Your task to perform on an android device: Open maps Image 0: 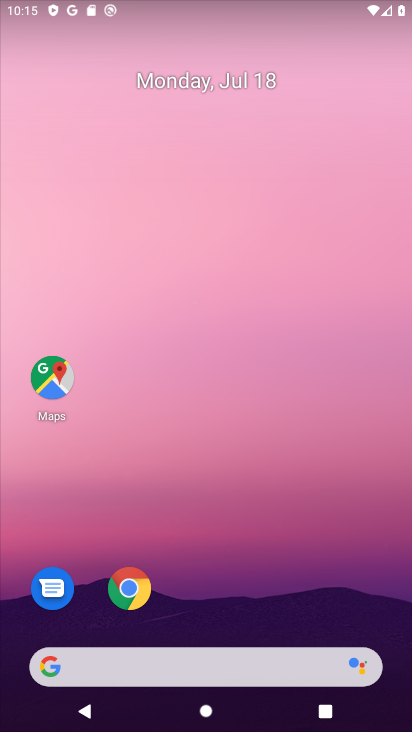
Step 0: press home button
Your task to perform on an android device: Open maps Image 1: 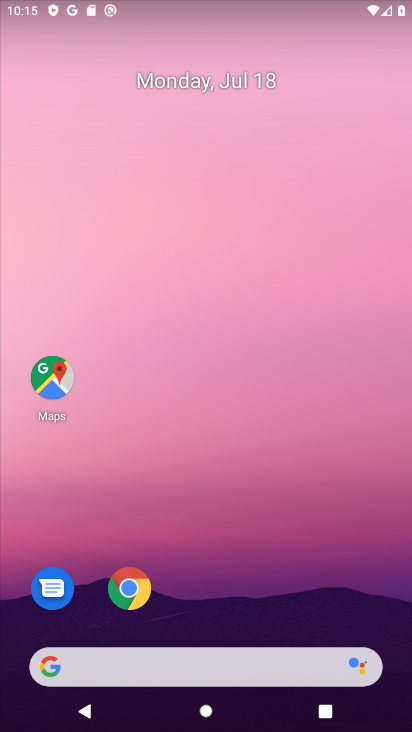
Step 1: click (49, 380)
Your task to perform on an android device: Open maps Image 2: 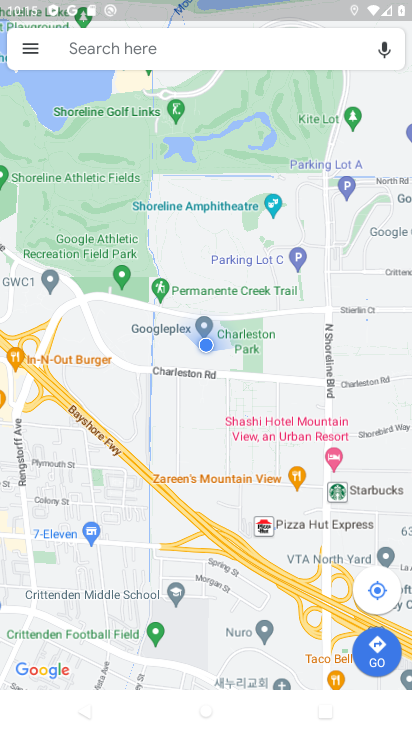
Step 2: task complete